Your task to perform on an android device: What is the news today? Image 0: 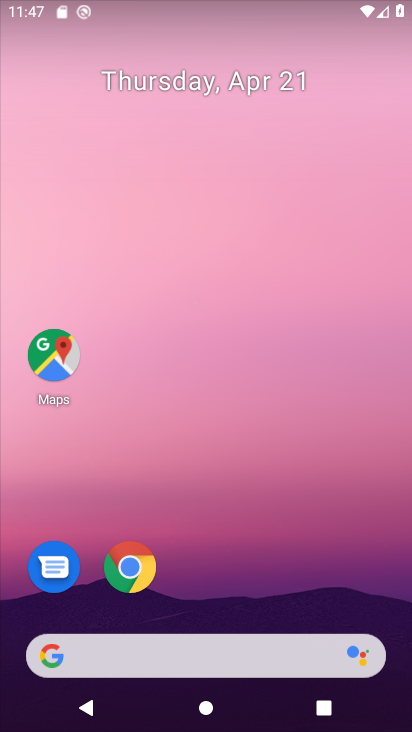
Step 0: drag from (207, 494) to (245, 181)
Your task to perform on an android device: What is the news today? Image 1: 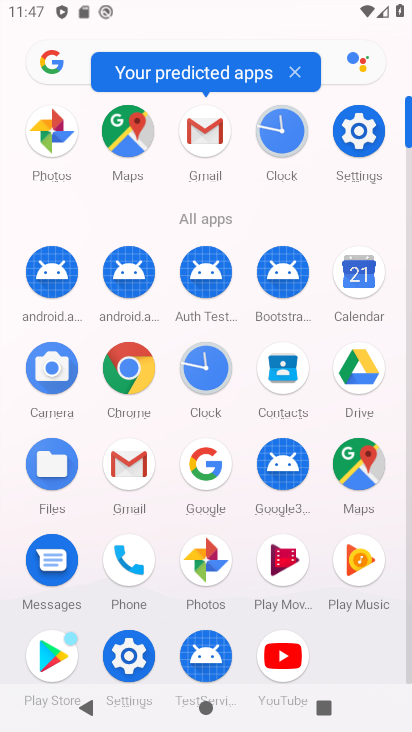
Step 1: click (208, 486)
Your task to perform on an android device: What is the news today? Image 2: 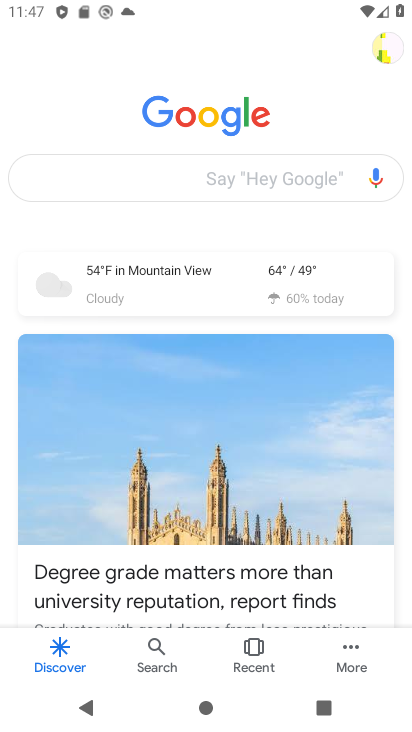
Step 2: click (231, 182)
Your task to perform on an android device: What is the news today? Image 3: 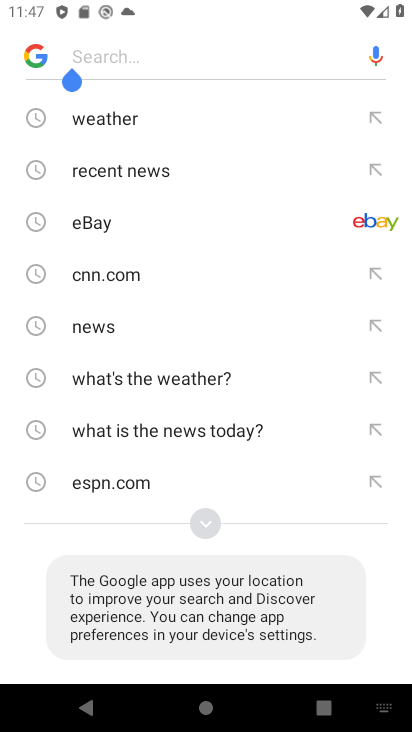
Step 3: click (173, 328)
Your task to perform on an android device: What is the news today? Image 4: 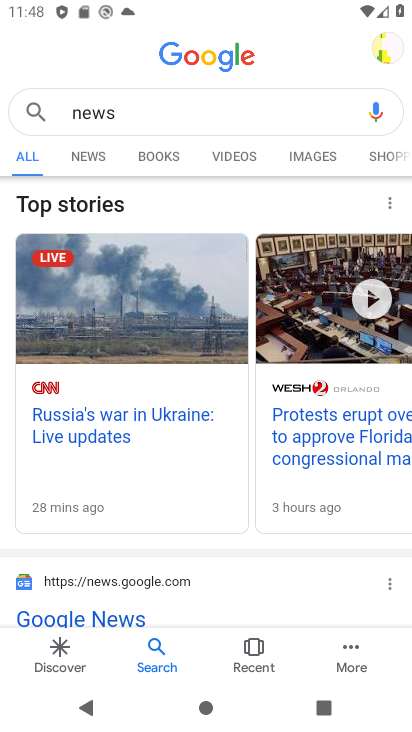
Step 4: click (94, 156)
Your task to perform on an android device: What is the news today? Image 5: 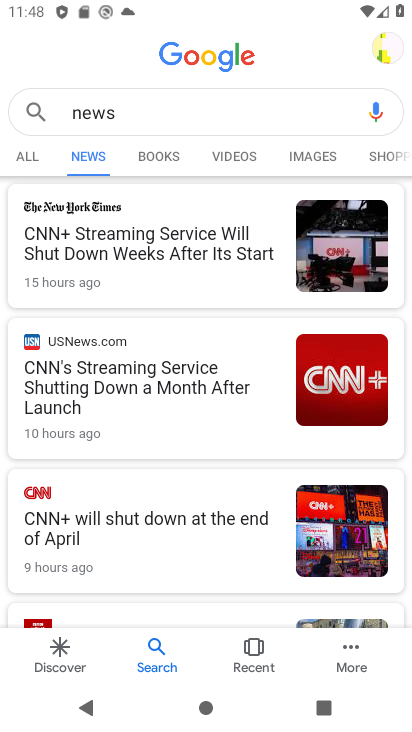
Step 5: task complete